Your task to perform on an android device: turn on javascript in the chrome app Image 0: 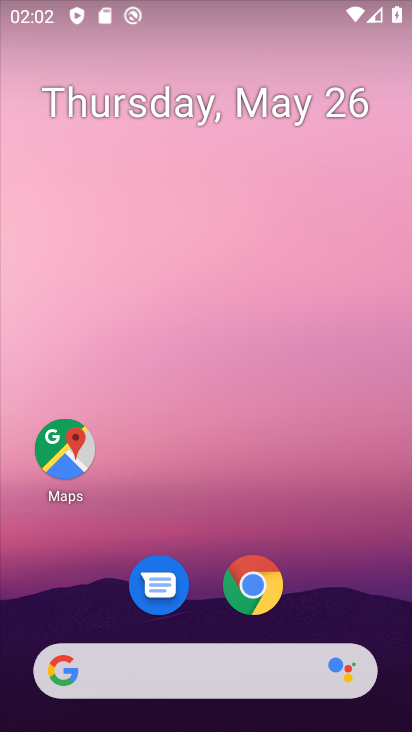
Step 0: click (265, 581)
Your task to perform on an android device: turn on javascript in the chrome app Image 1: 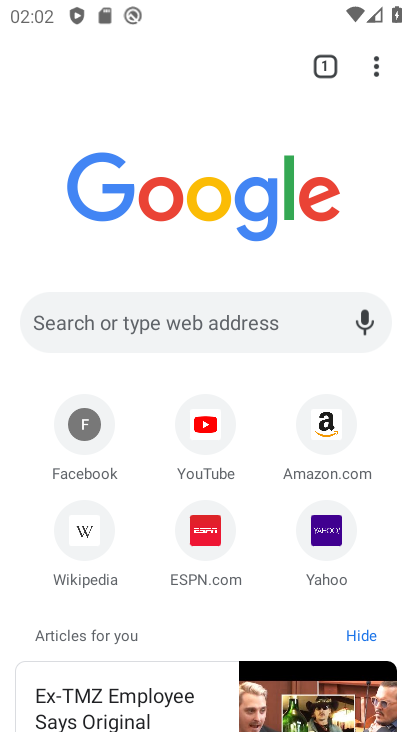
Step 1: click (376, 71)
Your task to perform on an android device: turn on javascript in the chrome app Image 2: 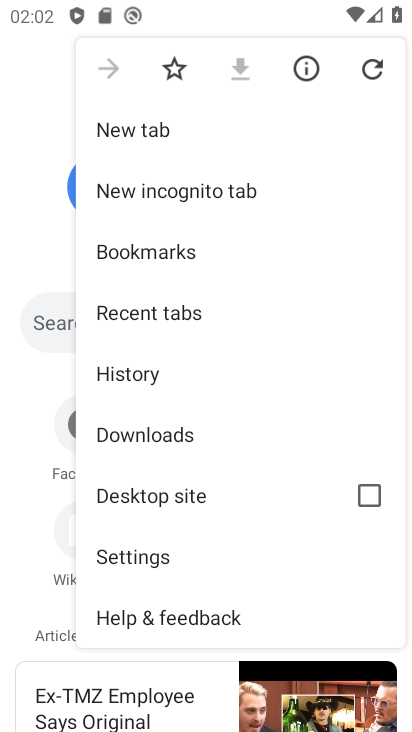
Step 2: click (169, 545)
Your task to perform on an android device: turn on javascript in the chrome app Image 3: 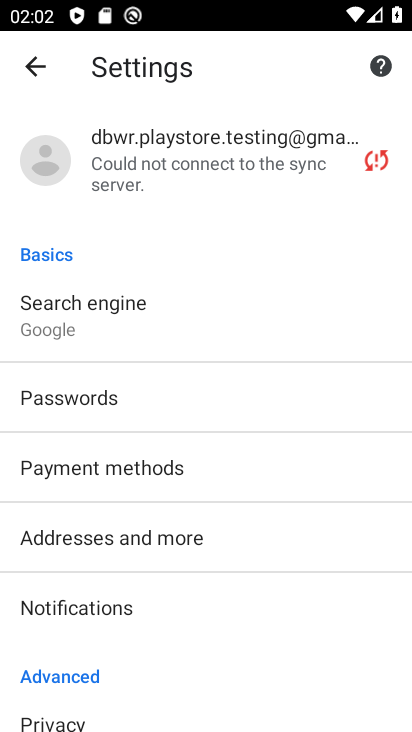
Step 3: drag from (229, 600) to (253, 247)
Your task to perform on an android device: turn on javascript in the chrome app Image 4: 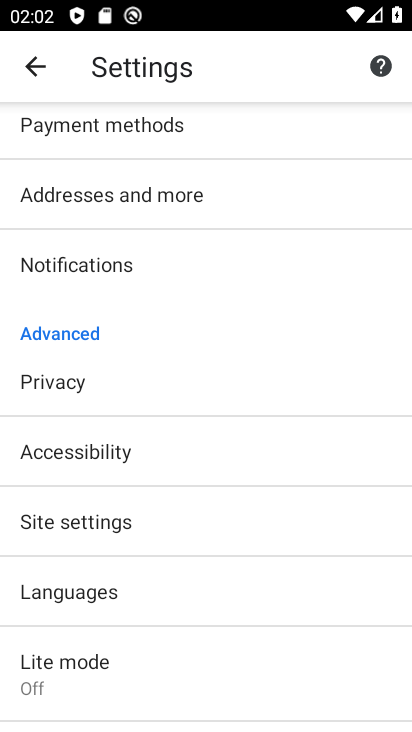
Step 4: click (167, 520)
Your task to perform on an android device: turn on javascript in the chrome app Image 5: 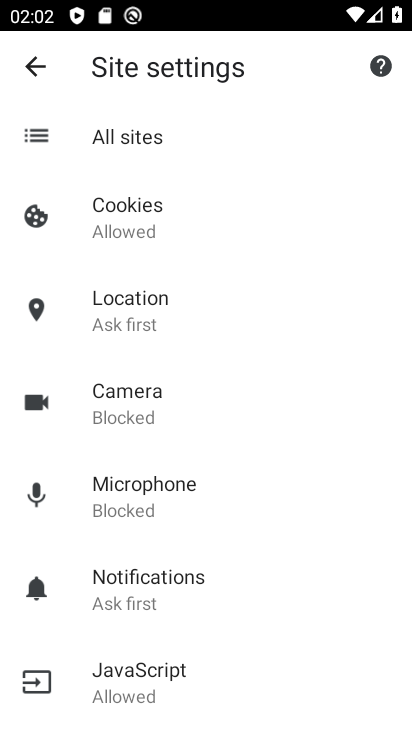
Step 5: click (209, 669)
Your task to perform on an android device: turn on javascript in the chrome app Image 6: 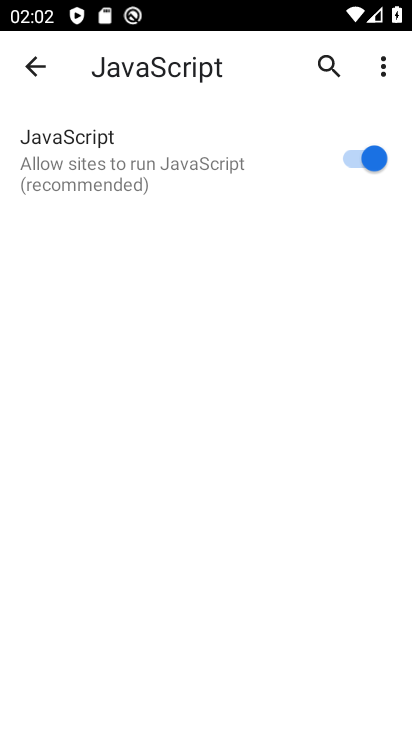
Step 6: task complete